Your task to perform on an android device: Open the Play Movies app and select the watchlist tab. Image 0: 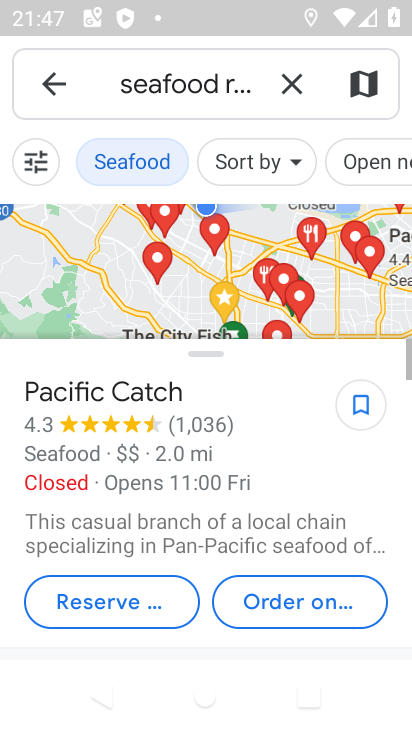
Step 0: press home button
Your task to perform on an android device: Open the Play Movies app and select the watchlist tab. Image 1: 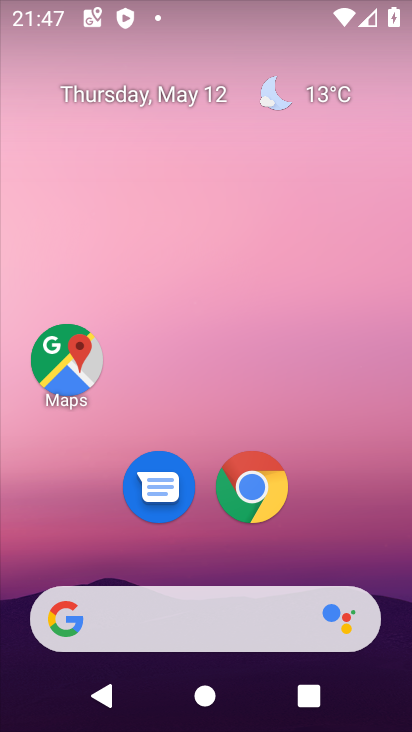
Step 1: drag from (192, 538) to (318, 161)
Your task to perform on an android device: Open the Play Movies app and select the watchlist tab. Image 2: 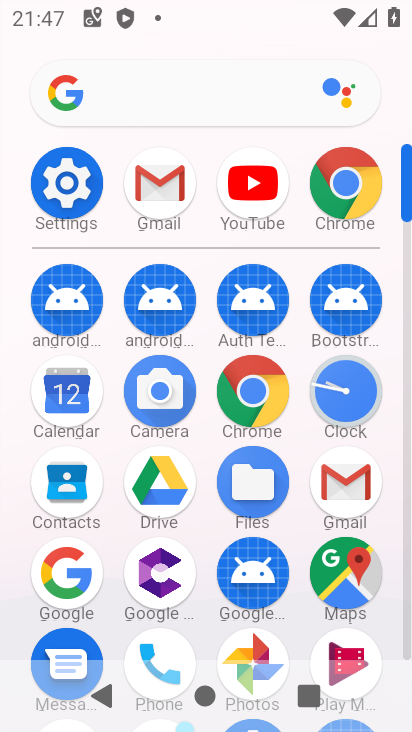
Step 2: click (338, 643)
Your task to perform on an android device: Open the Play Movies app and select the watchlist tab. Image 3: 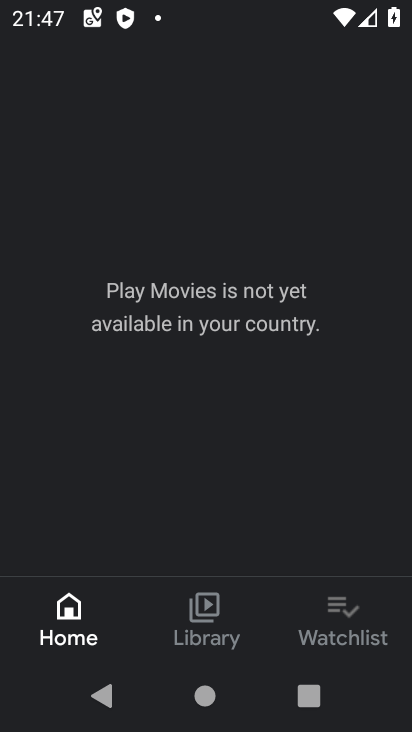
Step 3: click (338, 643)
Your task to perform on an android device: Open the Play Movies app and select the watchlist tab. Image 4: 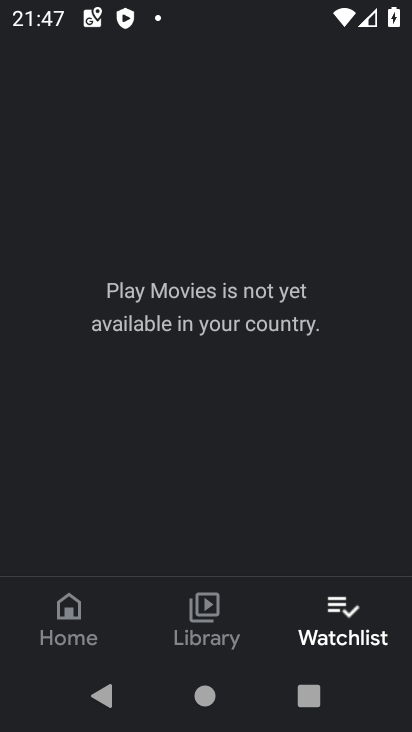
Step 4: task complete